Your task to perform on an android device: Is it going to rain today? Image 0: 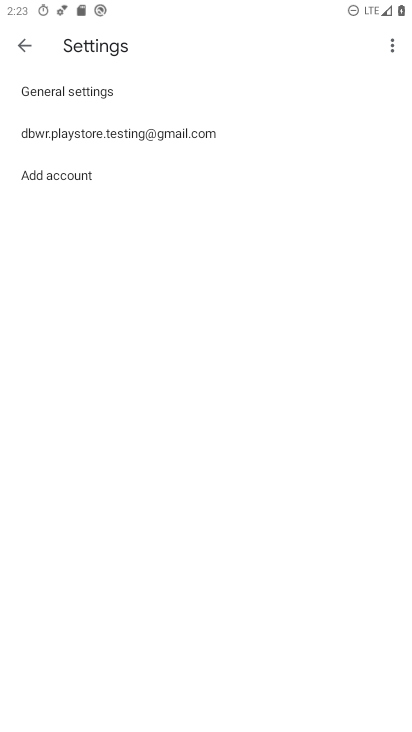
Step 0: press home button
Your task to perform on an android device: Is it going to rain today? Image 1: 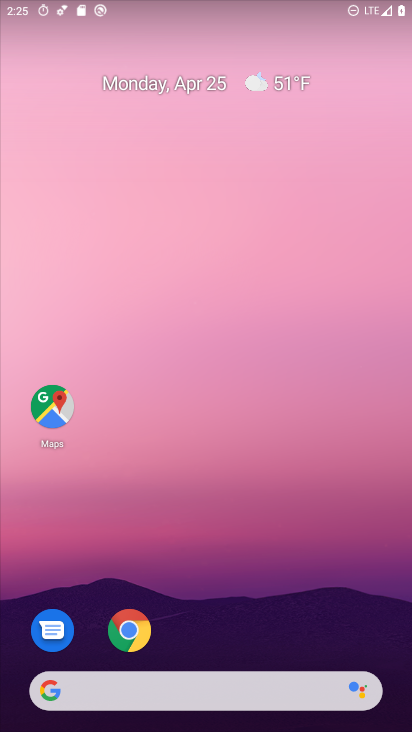
Step 1: drag from (197, 525) to (306, 0)
Your task to perform on an android device: Is it going to rain today? Image 2: 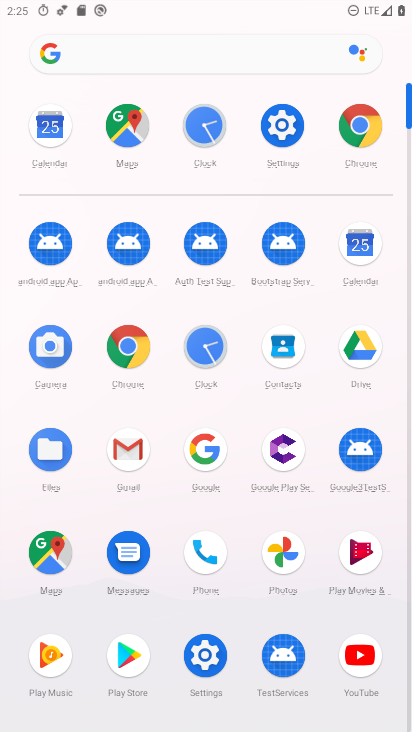
Step 2: click (177, 56)
Your task to perform on an android device: Is it going to rain today? Image 3: 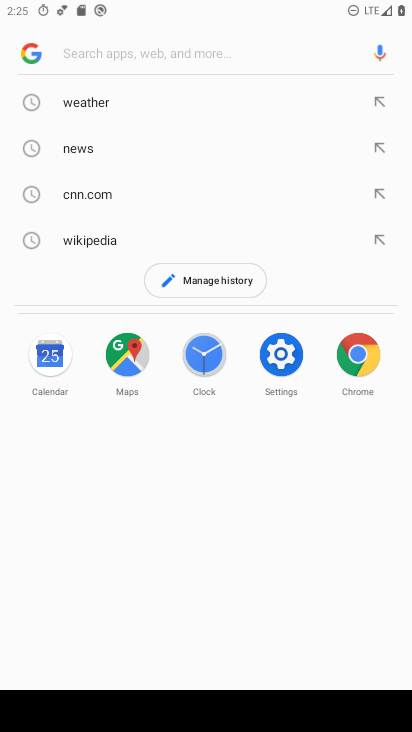
Step 3: click (99, 58)
Your task to perform on an android device: Is it going to rain today? Image 4: 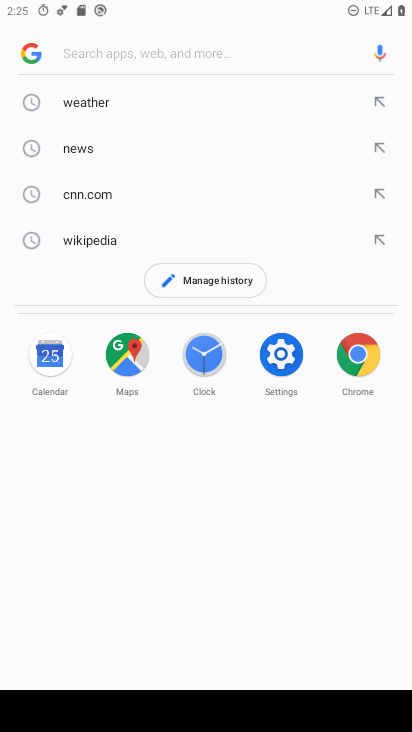
Step 4: type "rain today"
Your task to perform on an android device: Is it going to rain today? Image 5: 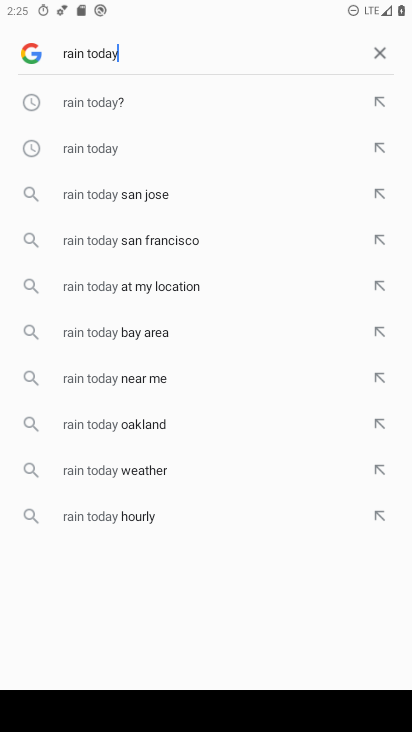
Step 5: click (131, 108)
Your task to perform on an android device: Is it going to rain today? Image 6: 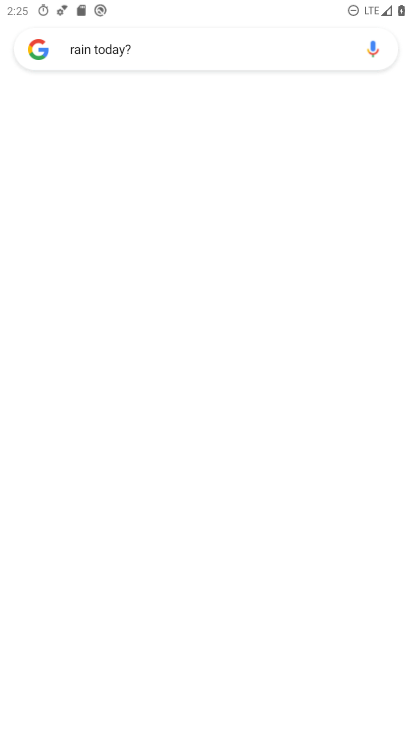
Step 6: task complete